Your task to perform on an android device: stop showing notifications on the lock screen Image 0: 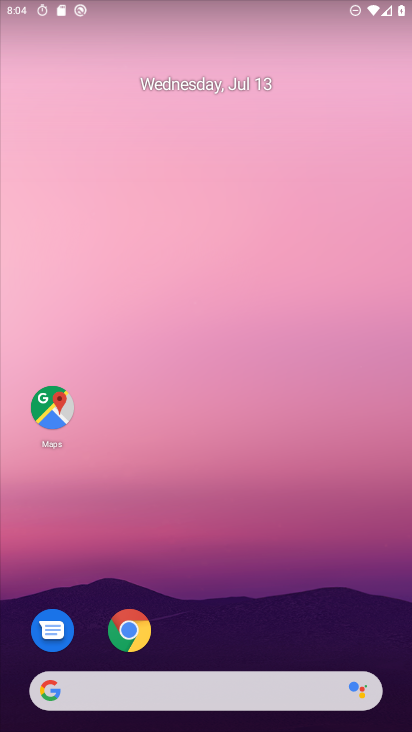
Step 0: drag from (379, 651) to (296, 26)
Your task to perform on an android device: stop showing notifications on the lock screen Image 1: 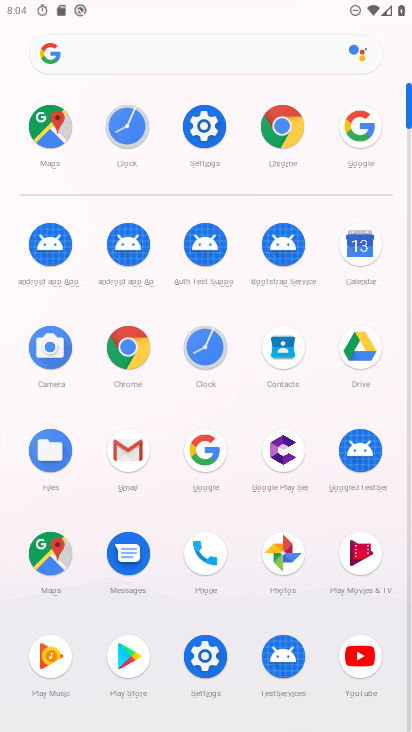
Step 1: click (196, 144)
Your task to perform on an android device: stop showing notifications on the lock screen Image 2: 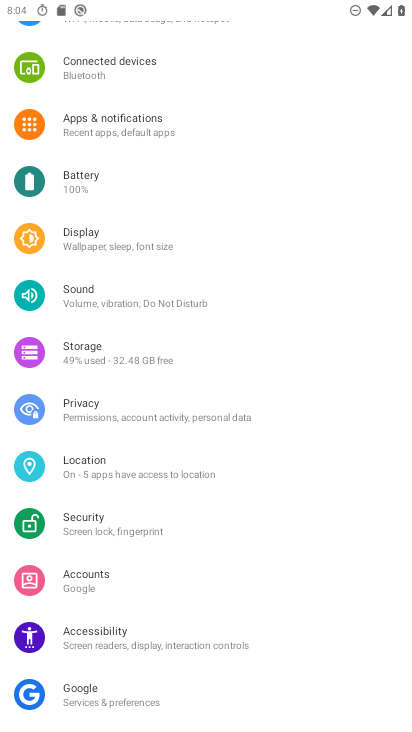
Step 2: click (154, 137)
Your task to perform on an android device: stop showing notifications on the lock screen Image 3: 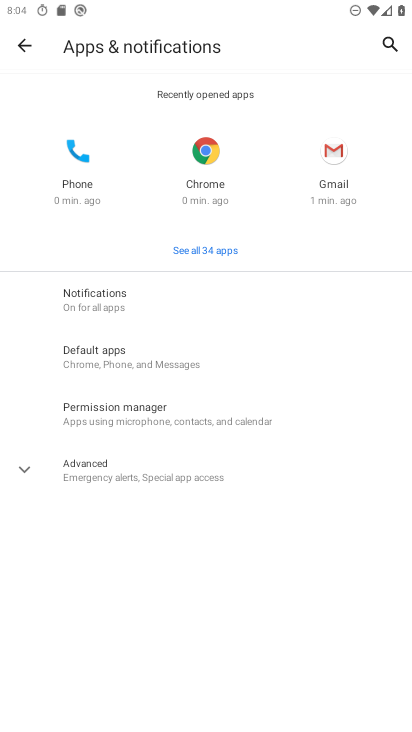
Step 3: click (127, 309)
Your task to perform on an android device: stop showing notifications on the lock screen Image 4: 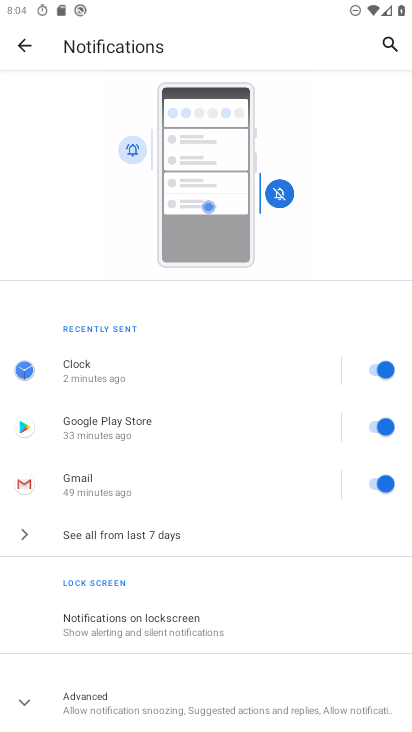
Step 4: click (145, 621)
Your task to perform on an android device: stop showing notifications on the lock screen Image 5: 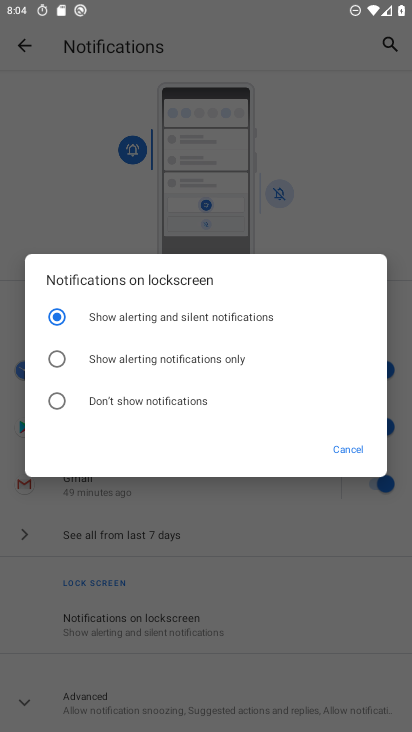
Step 5: click (60, 400)
Your task to perform on an android device: stop showing notifications on the lock screen Image 6: 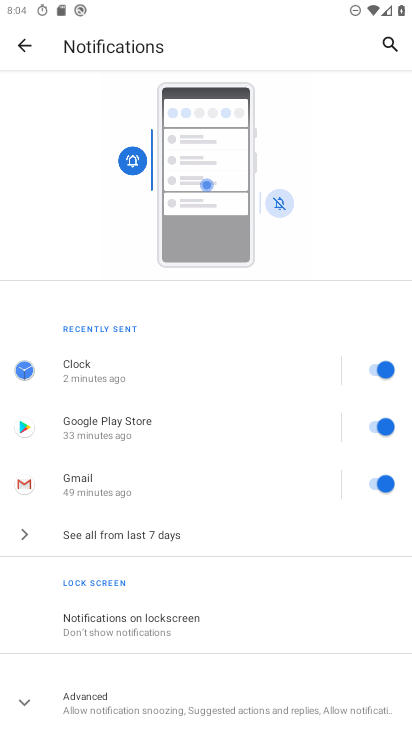
Step 6: task complete